Your task to perform on an android device: Search for vegetarian restaurants on Maps Image 0: 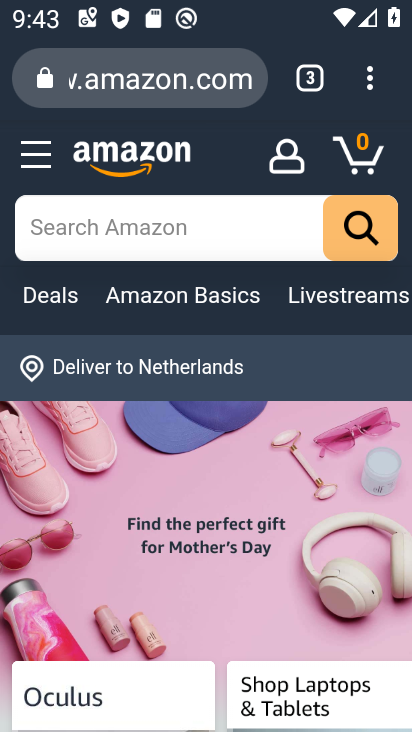
Step 0: drag from (334, 574) to (337, 145)
Your task to perform on an android device: Search for vegetarian restaurants on Maps Image 1: 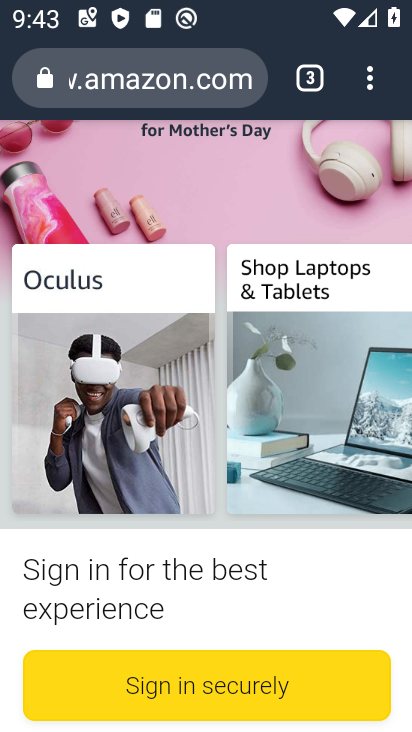
Step 1: press home button
Your task to perform on an android device: Search for vegetarian restaurants on Maps Image 2: 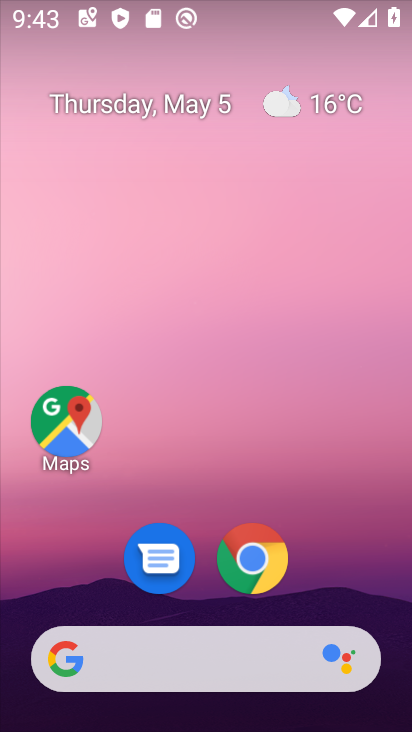
Step 2: drag from (345, 588) to (285, 100)
Your task to perform on an android device: Search for vegetarian restaurants on Maps Image 3: 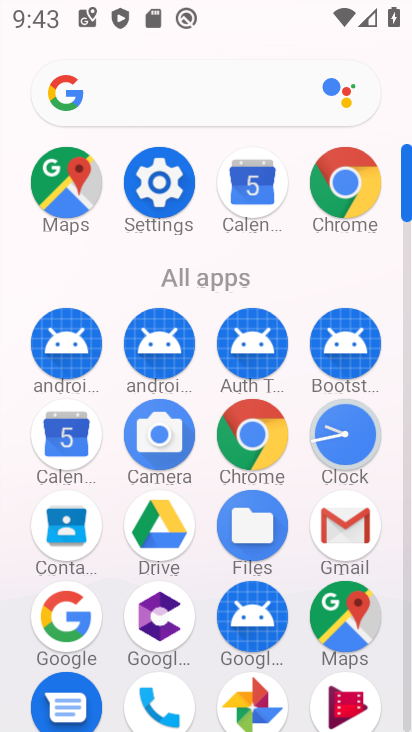
Step 3: click (75, 180)
Your task to perform on an android device: Search for vegetarian restaurants on Maps Image 4: 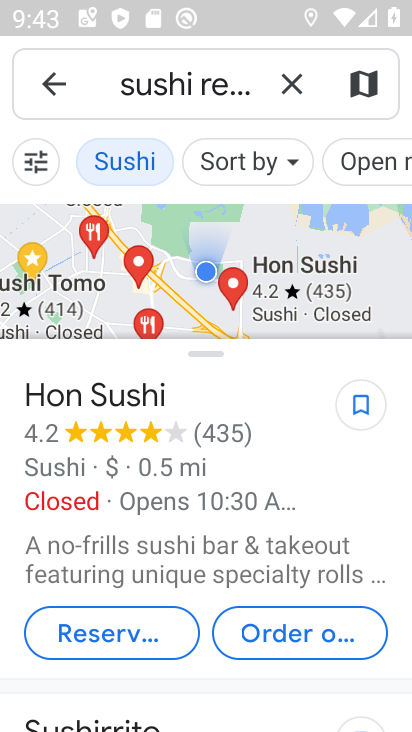
Step 4: click (300, 77)
Your task to perform on an android device: Search for vegetarian restaurants on Maps Image 5: 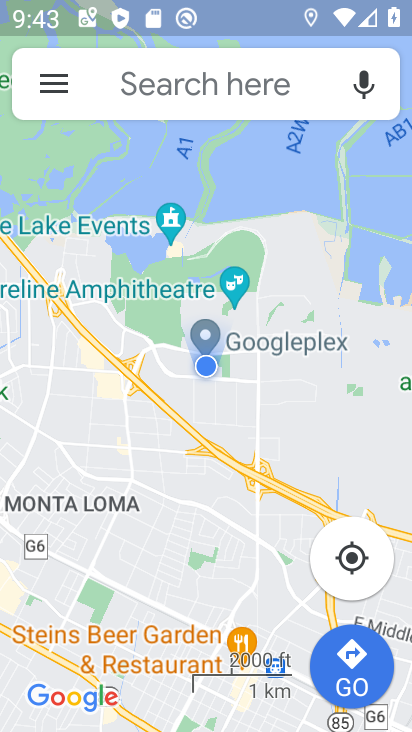
Step 5: click (212, 65)
Your task to perform on an android device: Search for vegetarian restaurants on Maps Image 6: 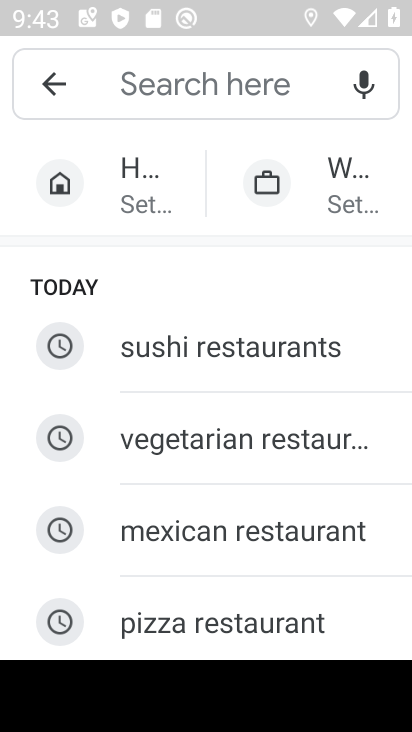
Step 6: click (316, 436)
Your task to perform on an android device: Search for vegetarian restaurants on Maps Image 7: 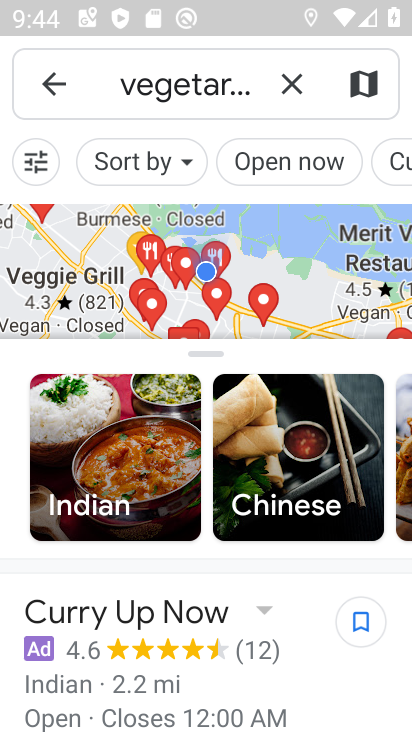
Step 7: task complete